Your task to perform on an android device: stop showing notifications on the lock screen Image 0: 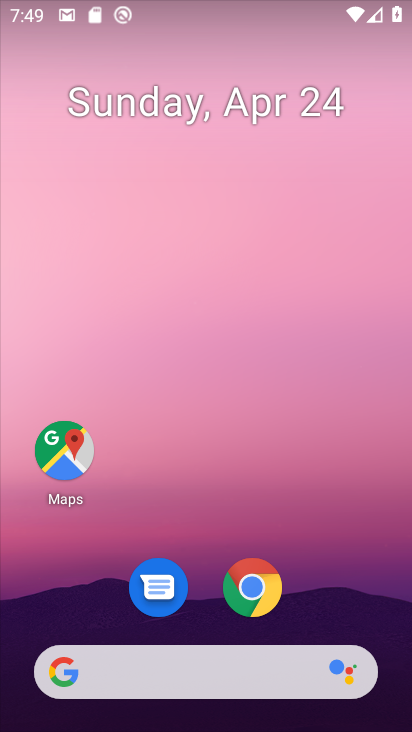
Step 0: drag from (331, 583) to (319, 148)
Your task to perform on an android device: stop showing notifications on the lock screen Image 1: 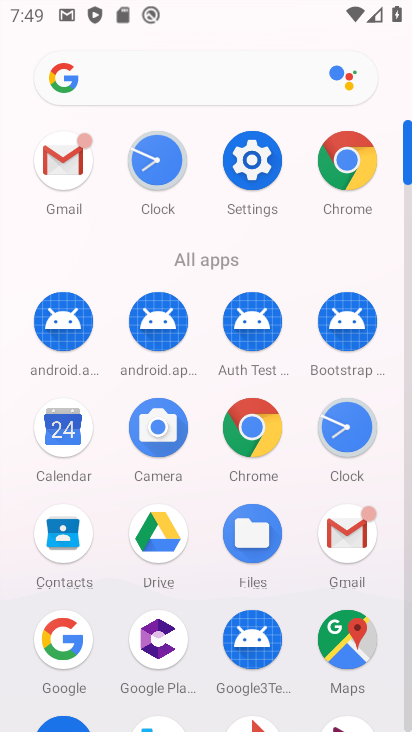
Step 1: click (252, 161)
Your task to perform on an android device: stop showing notifications on the lock screen Image 2: 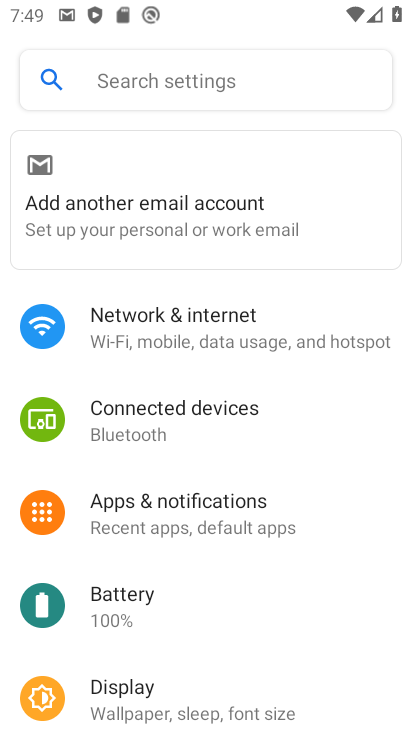
Step 2: click (218, 522)
Your task to perform on an android device: stop showing notifications on the lock screen Image 3: 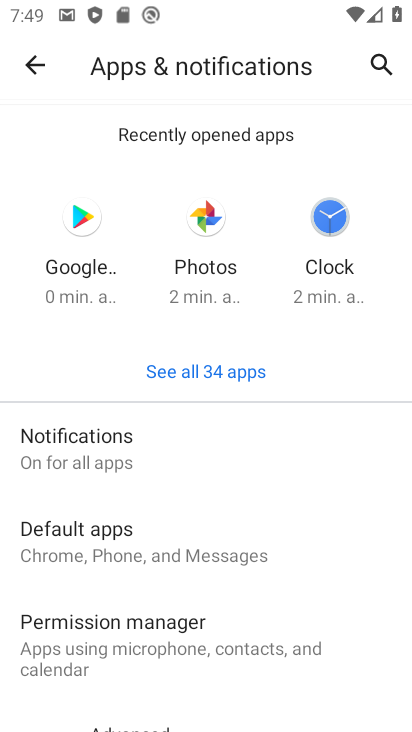
Step 3: click (91, 438)
Your task to perform on an android device: stop showing notifications on the lock screen Image 4: 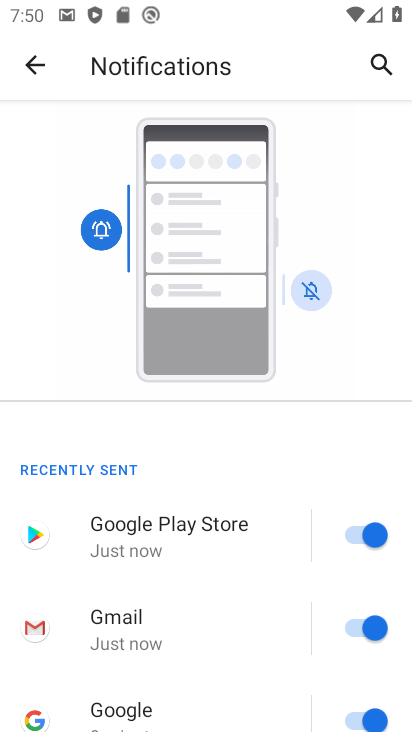
Step 4: drag from (214, 635) to (222, 361)
Your task to perform on an android device: stop showing notifications on the lock screen Image 5: 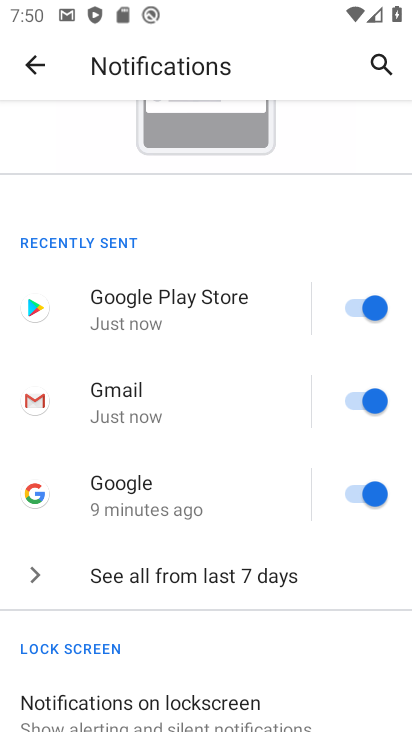
Step 5: drag from (210, 664) to (216, 349)
Your task to perform on an android device: stop showing notifications on the lock screen Image 6: 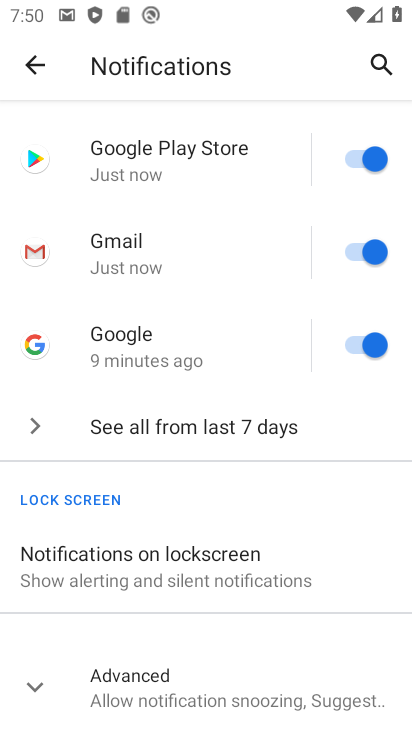
Step 6: click (218, 578)
Your task to perform on an android device: stop showing notifications on the lock screen Image 7: 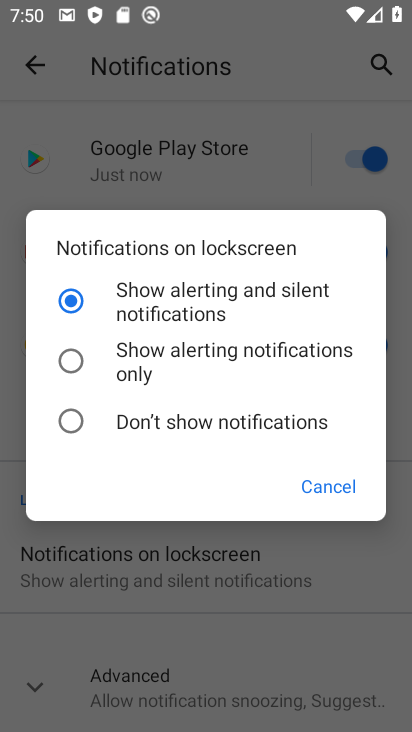
Step 7: click (77, 423)
Your task to perform on an android device: stop showing notifications on the lock screen Image 8: 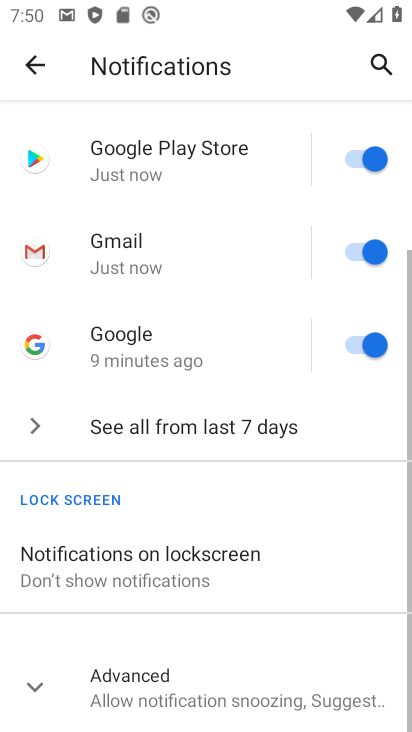
Step 8: task complete